Your task to perform on an android device: Open Google Image 0: 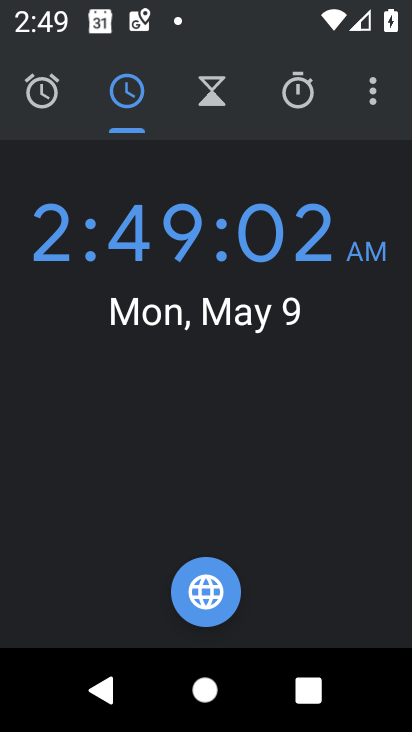
Step 0: press home button
Your task to perform on an android device: Open Google Image 1: 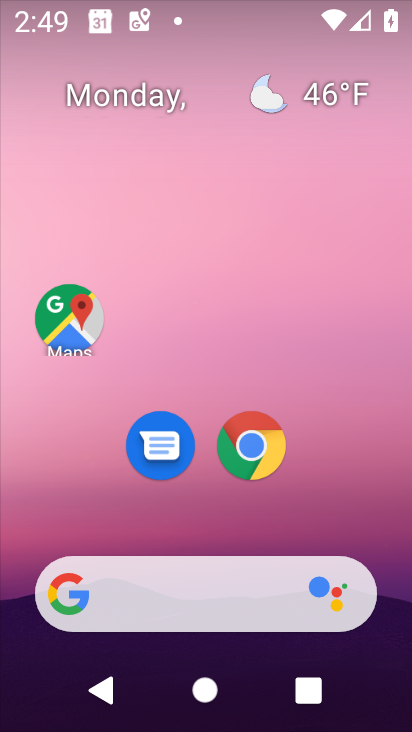
Step 1: drag from (317, 451) to (292, 200)
Your task to perform on an android device: Open Google Image 2: 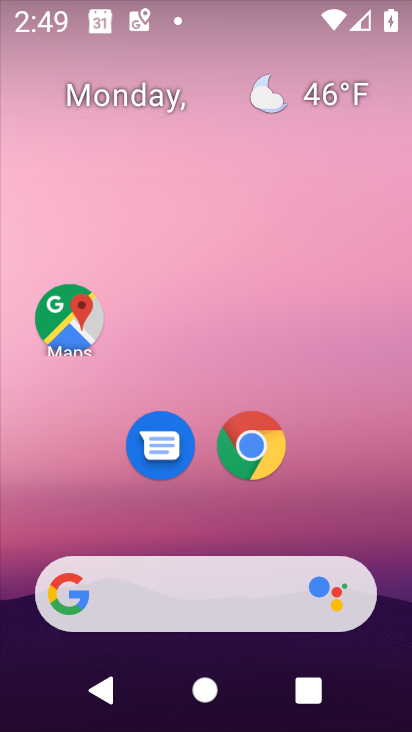
Step 2: drag from (317, 506) to (302, 121)
Your task to perform on an android device: Open Google Image 3: 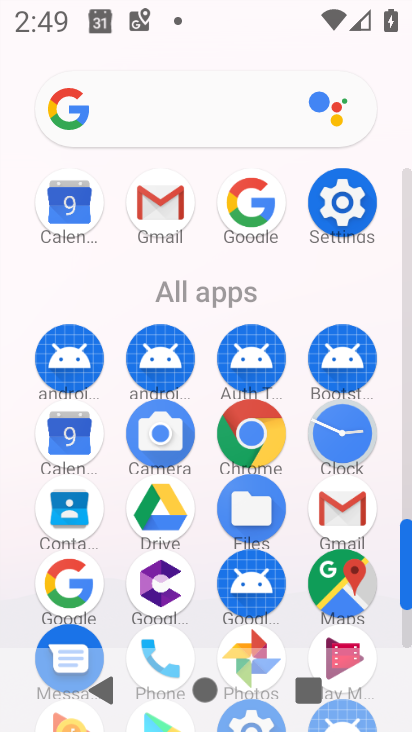
Step 3: click (259, 192)
Your task to perform on an android device: Open Google Image 4: 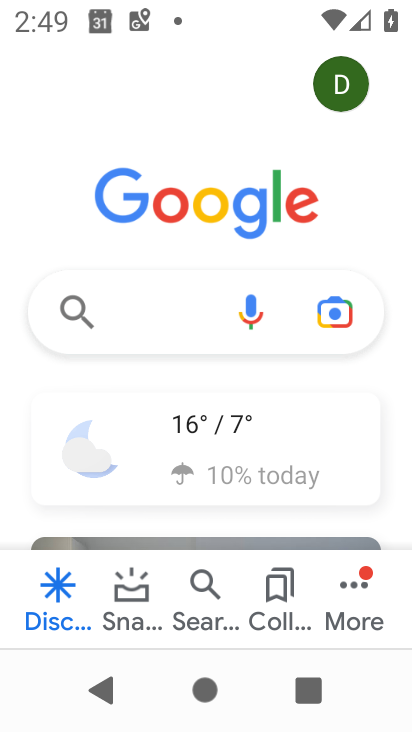
Step 4: task complete